Your task to perform on an android device: Open the web browser Image 0: 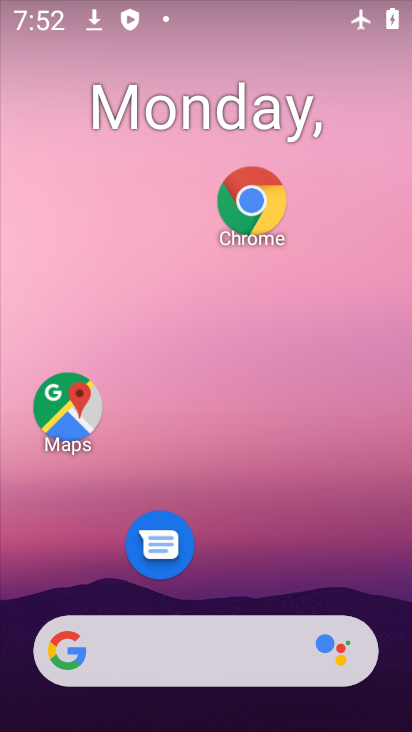
Step 0: click (247, 214)
Your task to perform on an android device: Open the web browser Image 1: 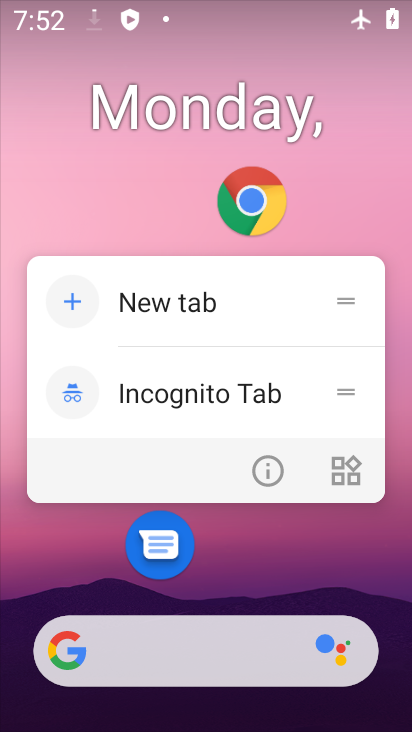
Step 1: click (256, 200)
Your task to perform on an android device: Open the web browser Image 2: 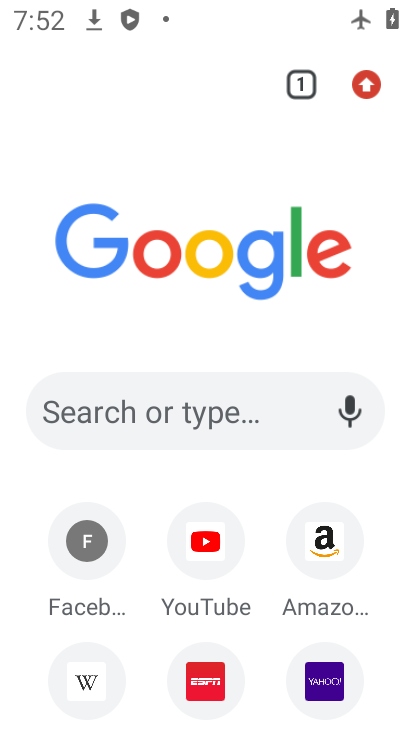
Step 2: task complete